Your task to perform on an android device: Open wifi settings Image 0: 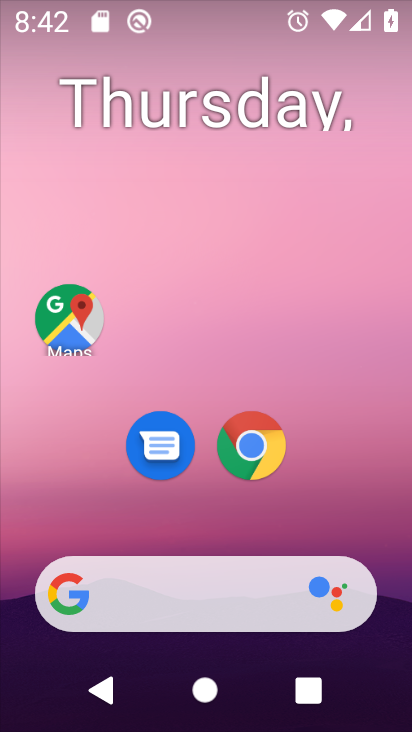
Step 0: drag from (335, 555) to (264, 69)
Your task to perform on an android device: Open wifi settings Image 1: 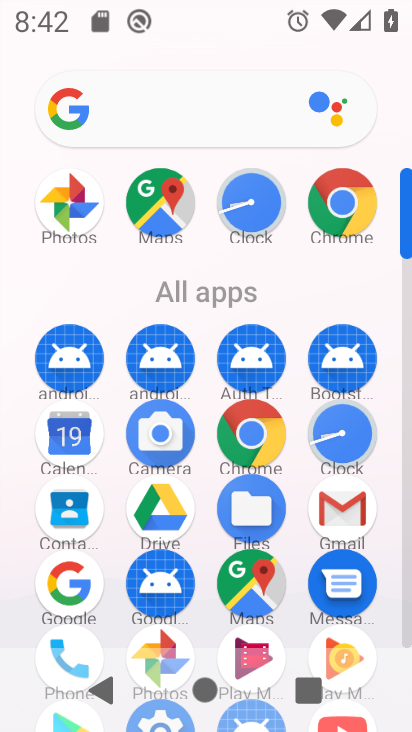
Step 1: drag from (388, 593) to (323, 264)
Your task to perform on an android device: Open wifi settings Image 2: 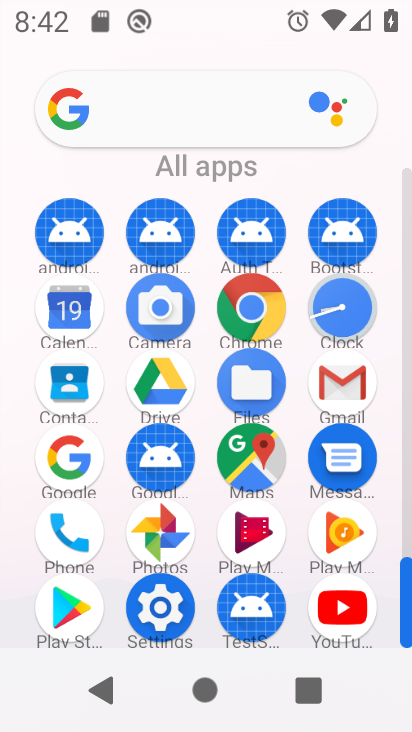
Step 2: click (173, 618)
Your task to perform on an android device: Open wifi settings Image 3: 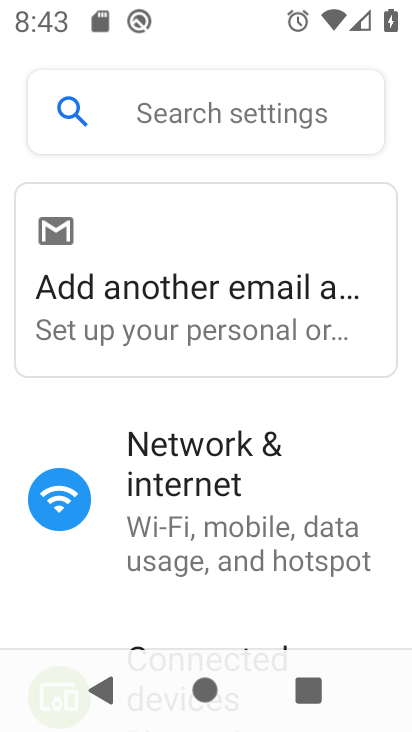
Step 3: click (250, 484)
Your task to perform on an android device: Open wifi settings Image 4: 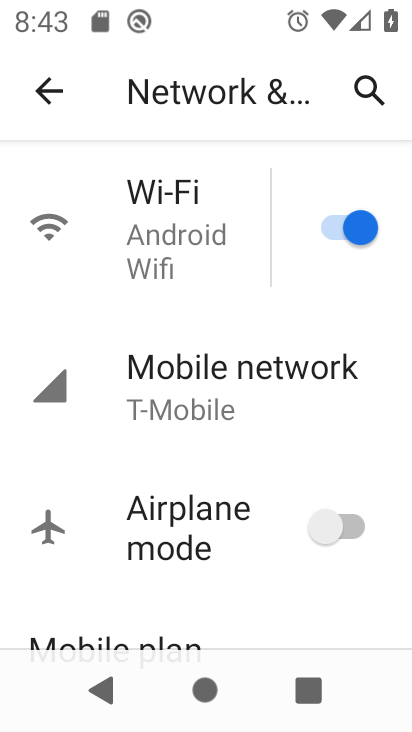
Step 4: click (146, 232)
Your task to perform on an android device: Open wifi settings Image 5: 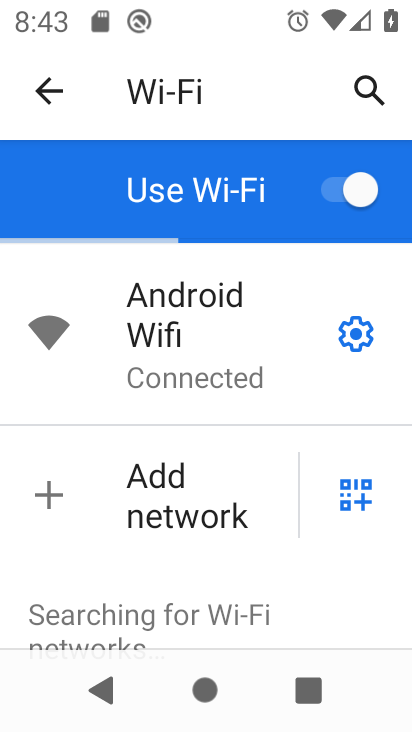
Step 5: task complete